Your task to perform on an android device: Go to calendar. Show me events next week Image 0: 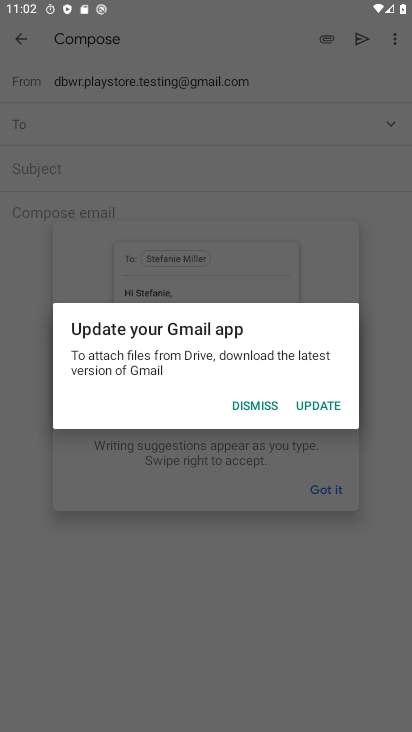
Step 0: press home button
Your task to perform on an android device: Go to calendar. Show me events next week Image 1: 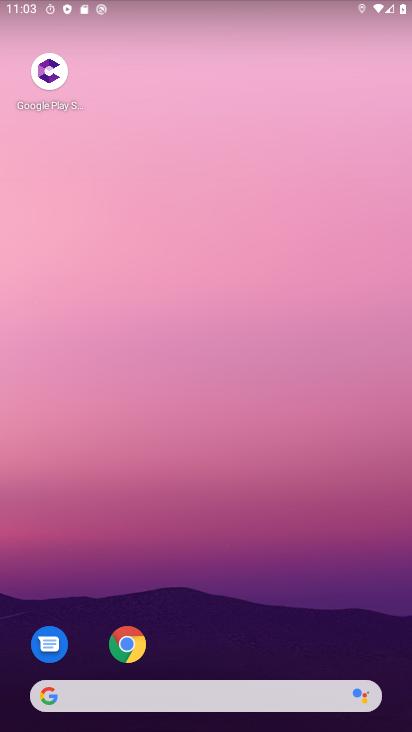
Step 1: drag from (123, 730) to (142, 172)
Your task to perform on an android device: Go to calendar. Show me events next week Image 2: 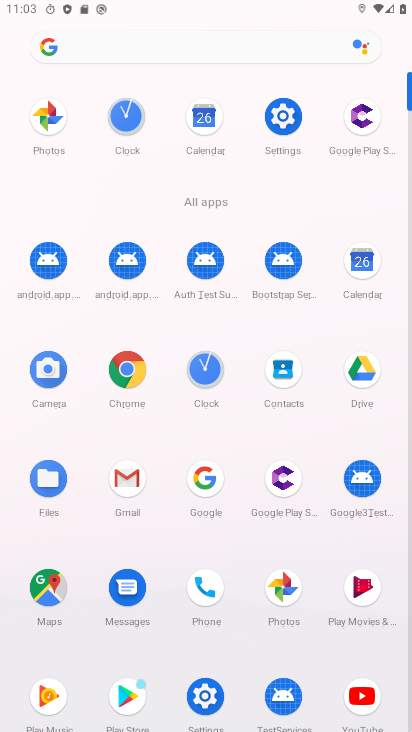
Step 2: click (359, 263)
Your task to perform on an android device: Go to calendar. Show me events next week Image 3: 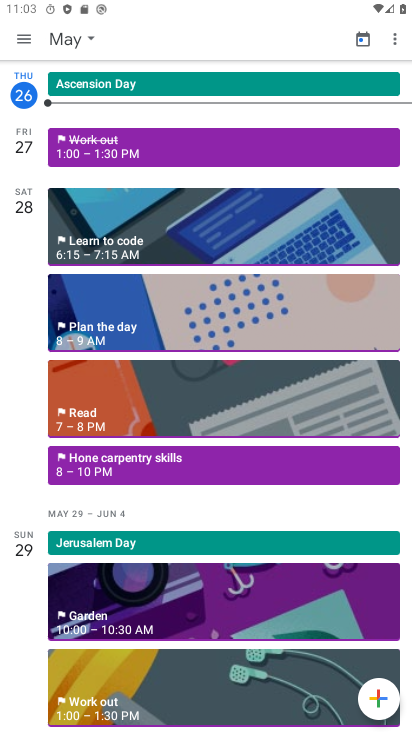
Step 3: click (20, 37)
Your task to perform on an android device: Go to calendar. Show me events next week Image 4: 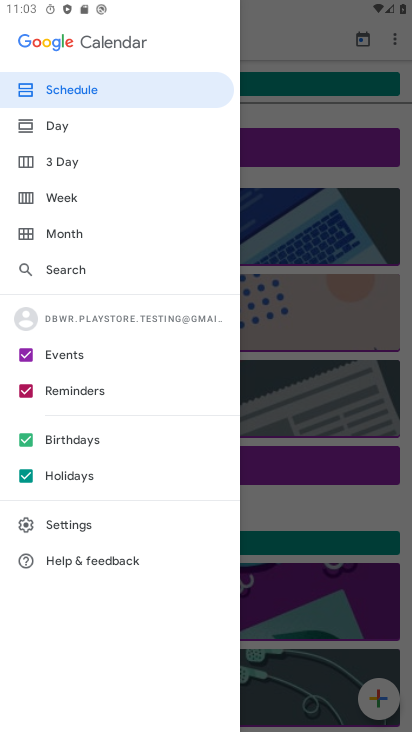
Step 4: click (46, 385)
Your task to perform on an android device: Go to calendar. Show me events next week Image 5: 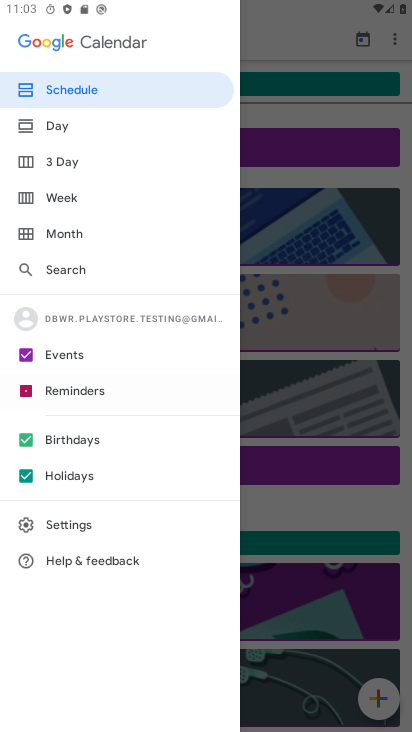
Step 5: click (63, 440)
Your task to perform on an android device: Go to calendar. Show me events next week Image 6: 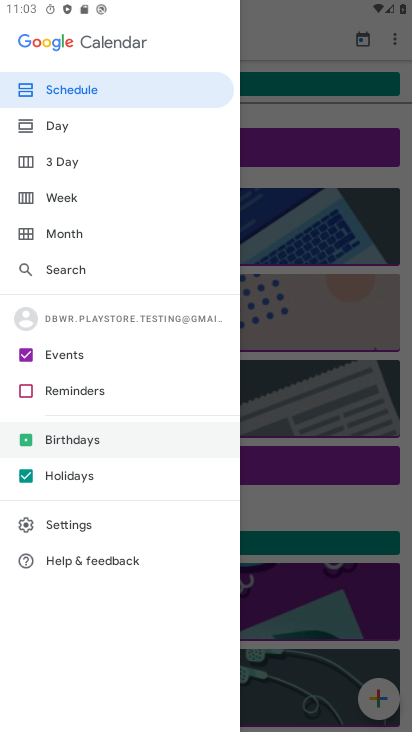
Step 6: click (64, 482)
Your task to perform on an android device: Go to calendar. Show me events next week Image 7: 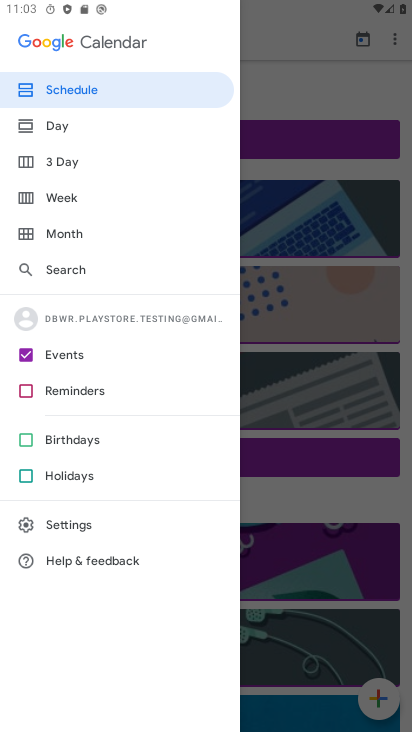
Step 7: click (75, 196)
Your task to perform on an android device: Go to calendar. Show me events next week Image 8: 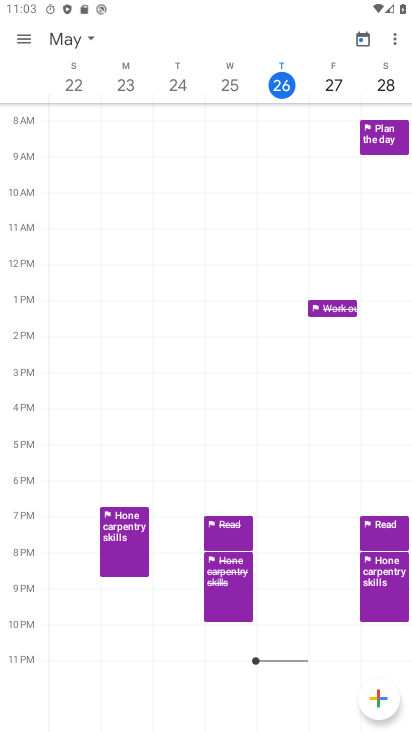
Step 8: task complete